Your task to perform on an android device: open a bookmark in the chrome app Image 0: 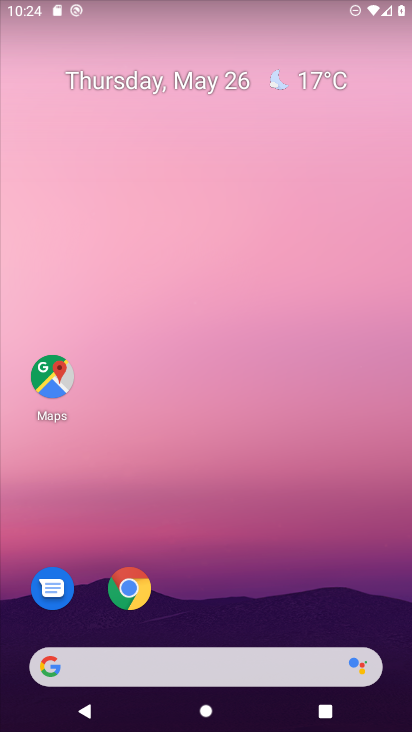
Step 0: click (126, 587)
Your task to perform on an android device: open a bookmark in the chrome app Image 1: 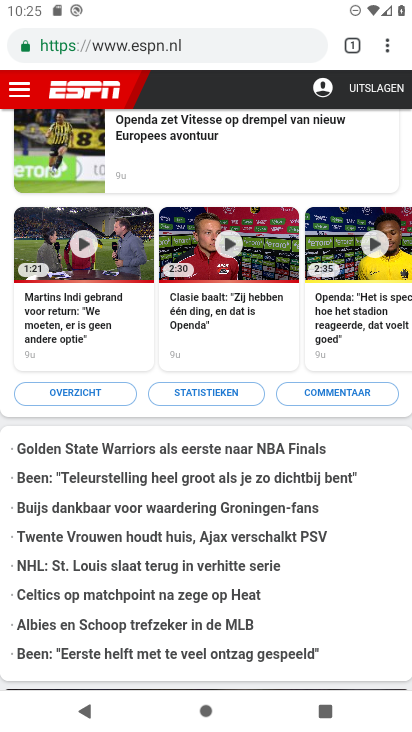
Step 1: click (385, 45)
Your task to perform on an android device: open a bookmark in the chrome app Image 2: 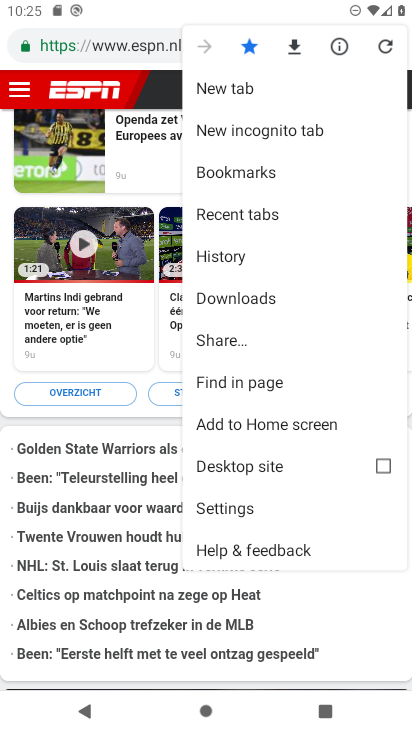
Step 2: click (224, 175)
Your task to perform on an android device: open a bookmark in the chrome app Image 3: 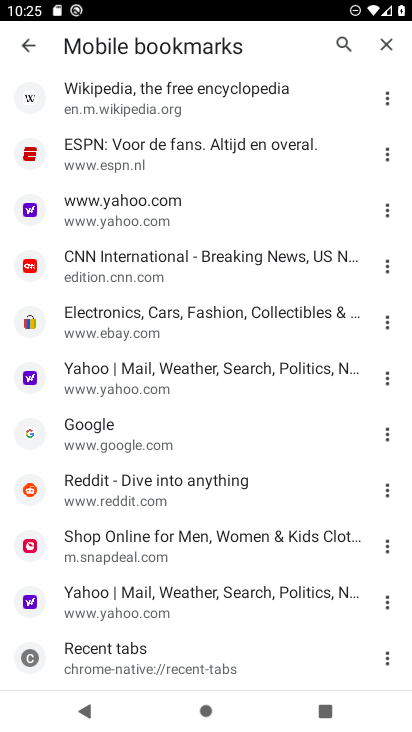
Step 3: task complete